Your task to perform on an android device: Go to Amazon Image 0: 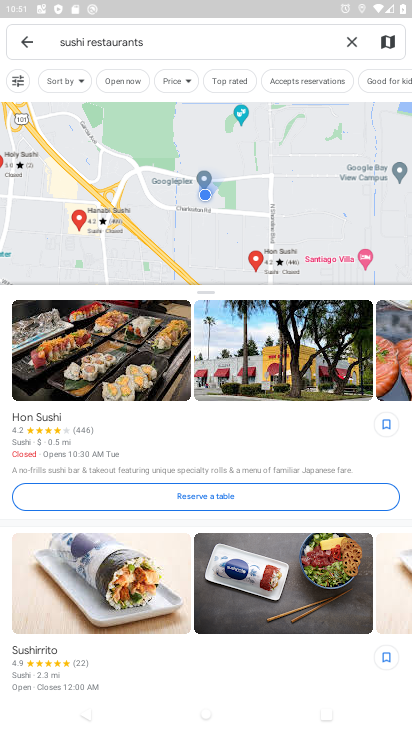
Step 0: press home button
Your task to perform on an android device: Go to Amazon Image 1: 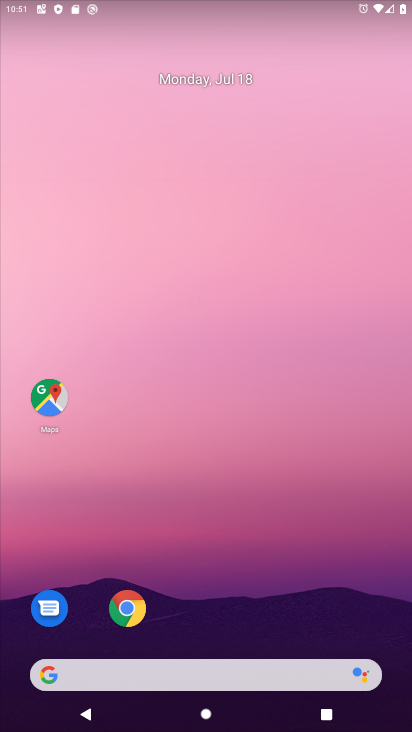
Step 1: click (114, 593)
Your task to perform on an android device: Go to Amazon Image 2: 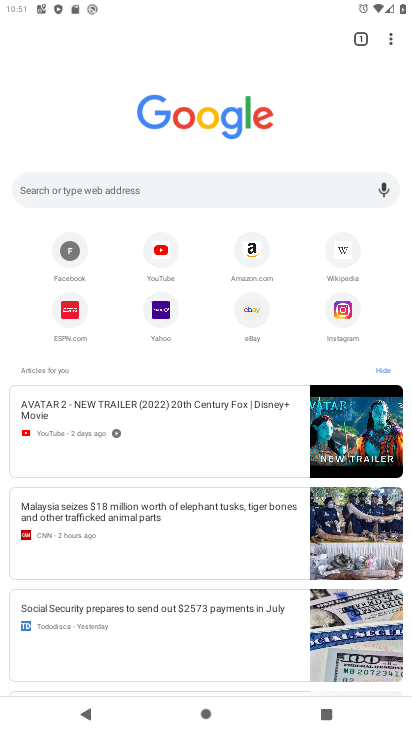
Step 2: click (246, 259)
Your task to perform on an android device: Go to Amazon Image 3: 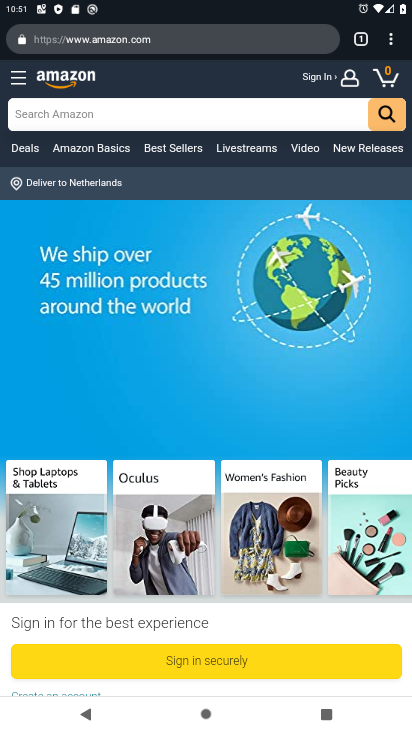
Step 3: task complete